Your task to perform on an android device: change notifications settings Image 0: 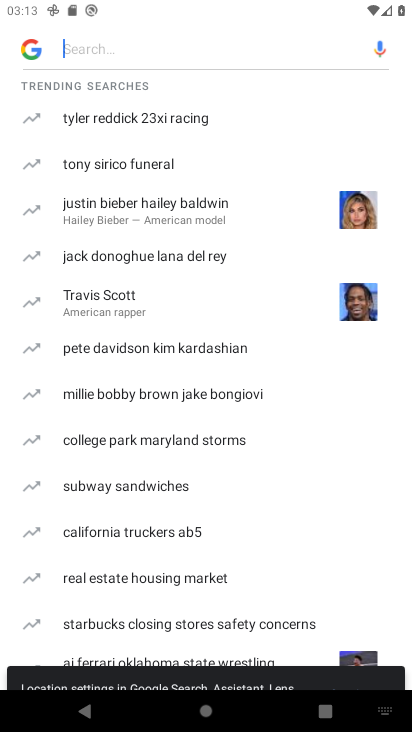
Step 0: press home button
Your task to perform on an android device: change notifications settings Image 1: 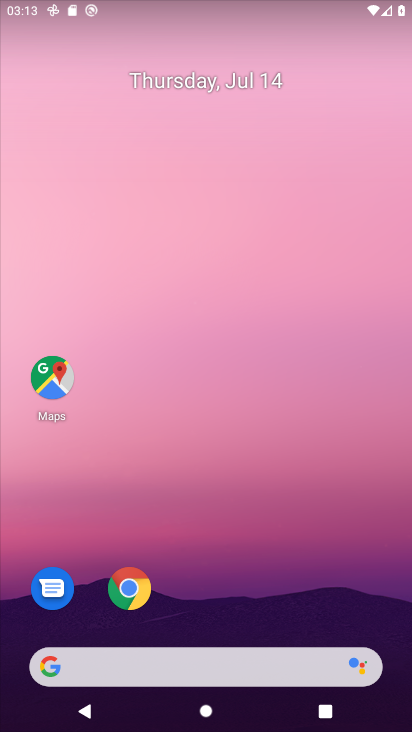
Step 1: drag from (242, 506) to (237, 168)
Your task to perform on an android device: change notifications settings Image 2: 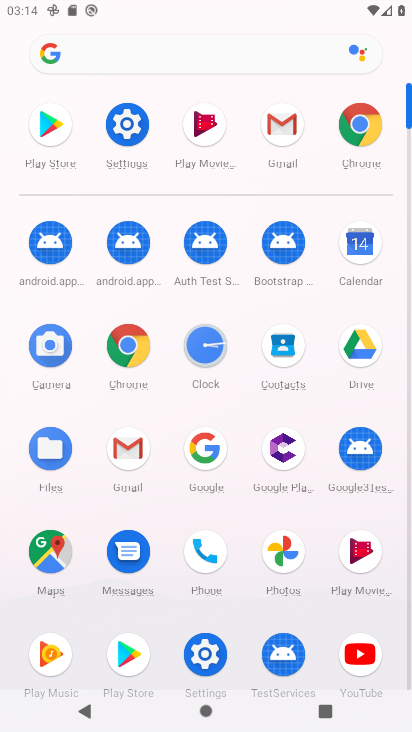
Step 2: click (131, 124)
Your task to perform on an android device: change notifications settings Image 3: 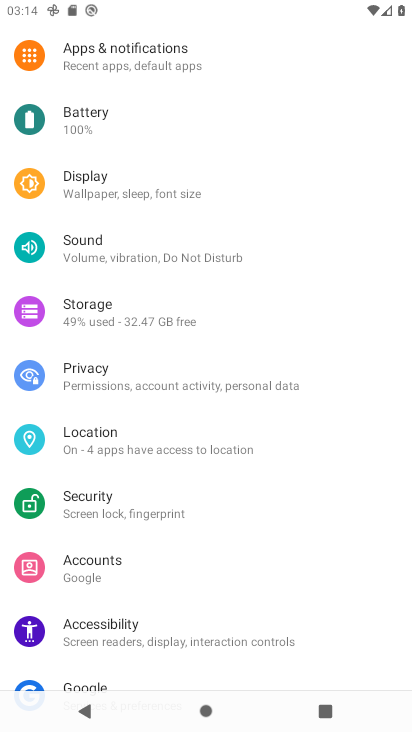
Step 3: click (167, 58)
Your task to perform on an android device: change notifications settings Image 4: 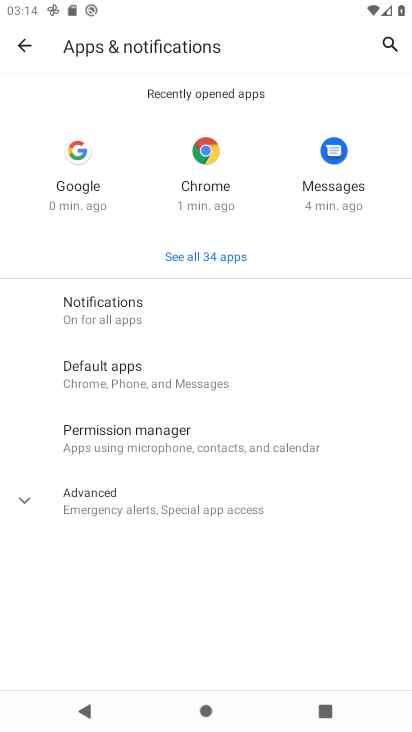
Step 4: click (293, 311)
Your task to perform on an android device: change notifications settings Image 5: 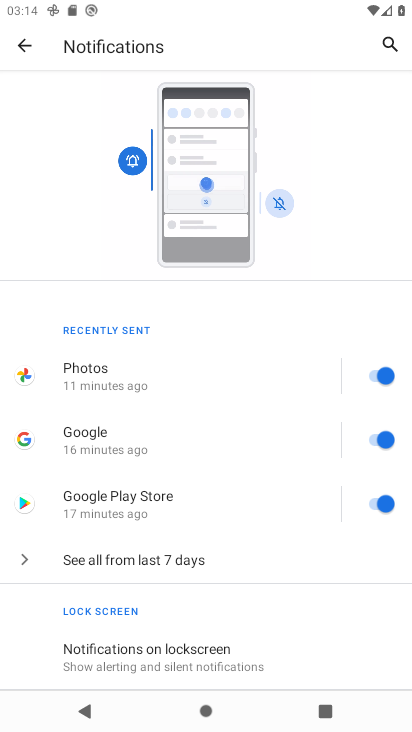
Step 5: task complete